Your task to perform on an android device: delete browsing data in the chrome app Image 0: 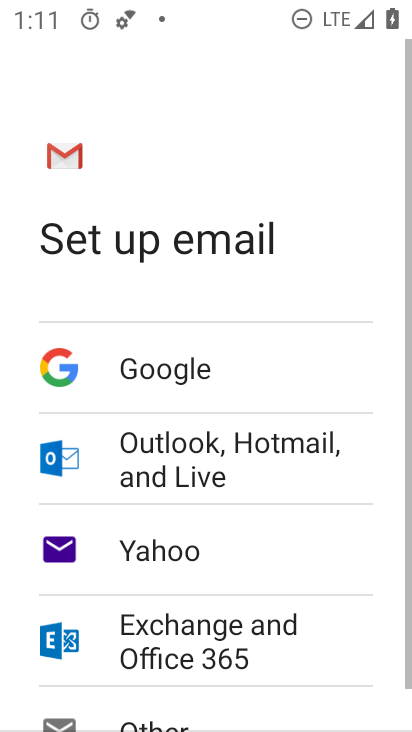
Step 0: press home button
Your task to perform on an android device: delete browsing data in the chrome app Image 1: 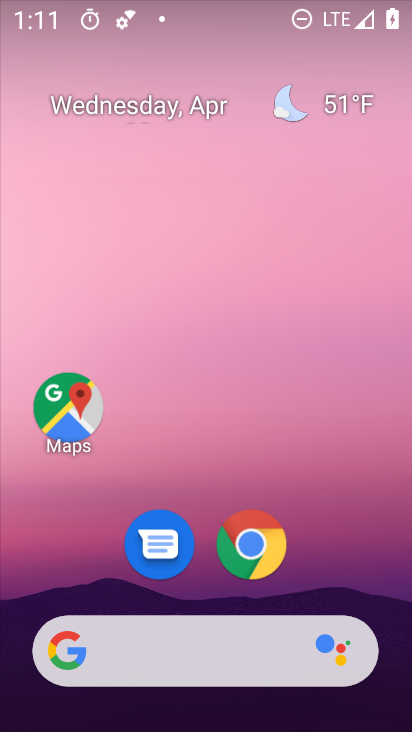
Step 1: drag from (340, 498) to (354, 131)
Your task to perform on an android device: delete browsing data in the chrome app Image 2: 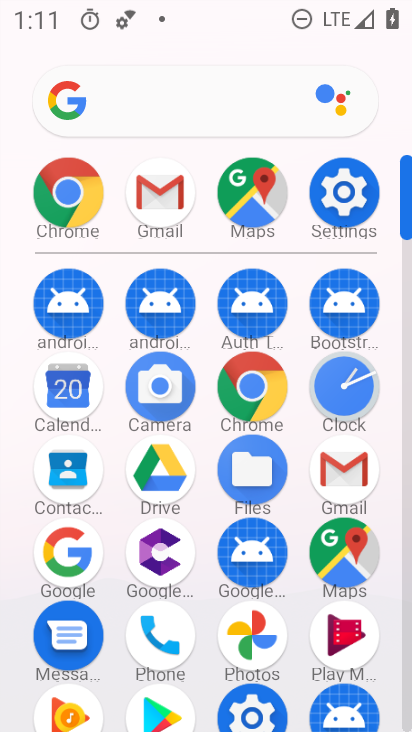
Step 2: click (232, 368)
Your task to perform on an android device: delete browsing data in the chrome app Image 3: 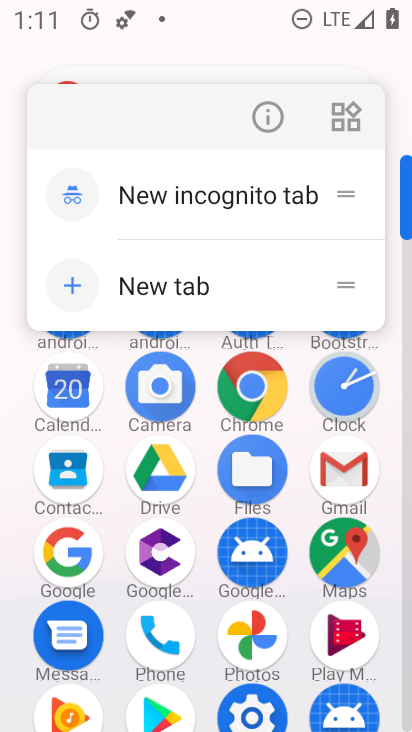
Step 3: click (247, 382)
Your task to perform on an android device: delete browsing data in the chrome app Image 4: 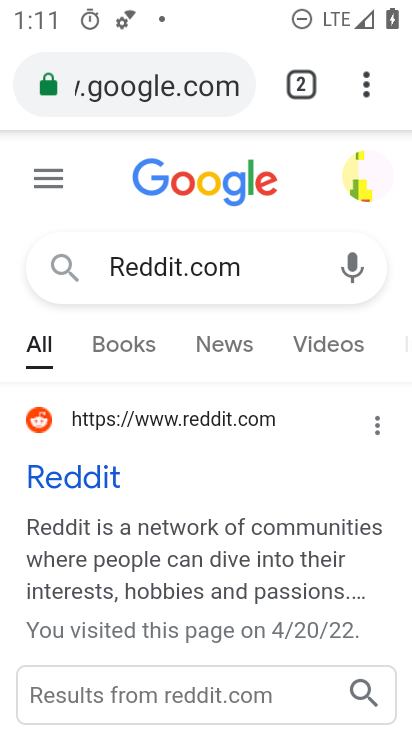
Step 4: click (369, 91)
Your task to perform on an android device: delete browsing data in the chrome app Image 5: 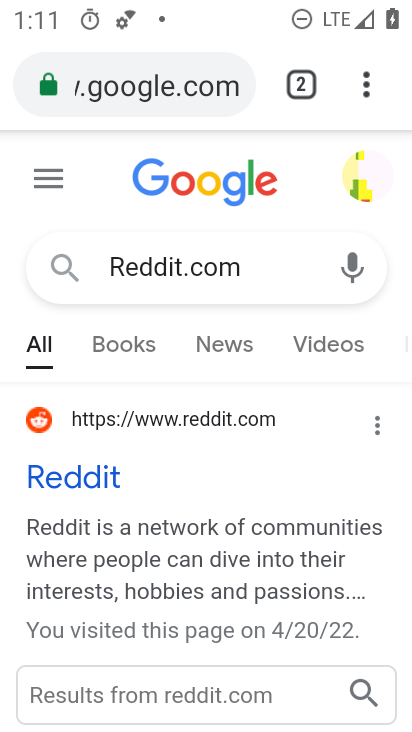
Step 5: click (363, 81)
Your task to perform on an android device: delete browsing data in the chrome app Image 6: 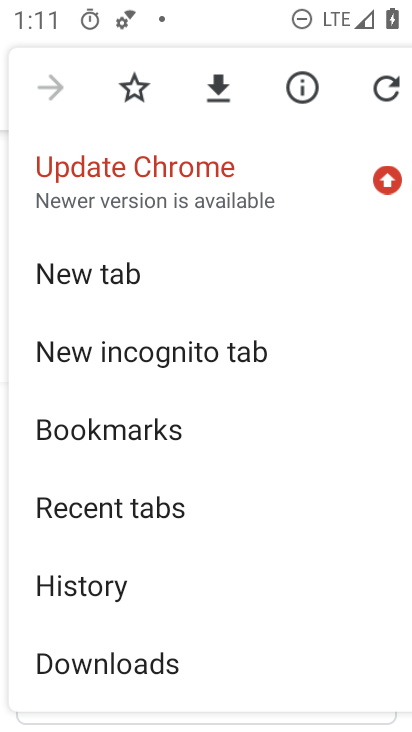
Step 6: drag from (331, 421) to (316, 247)
Your task to perform on an android device: delete browsing data in the chrome app Image 7: 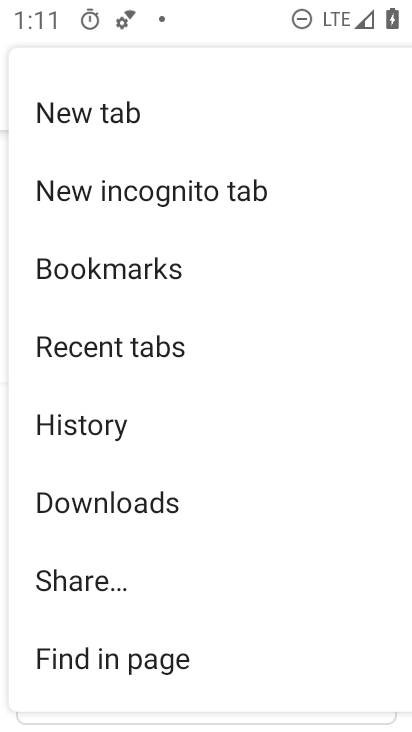
Step 7: drag from (311, 380) to (316, 181)
Your task to perform on an android device: delete browsing data in the chrome app Image 8: 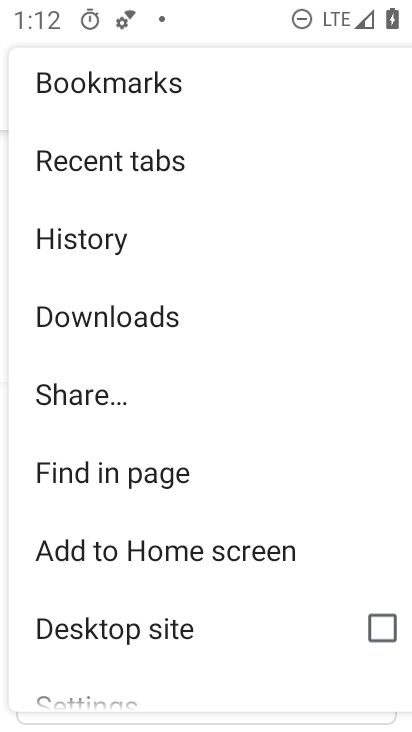
Step 8: drag from (323, 437) to (311, 232)
Your task to perform on an android device: delete browsing data in the chrome app Image 9: 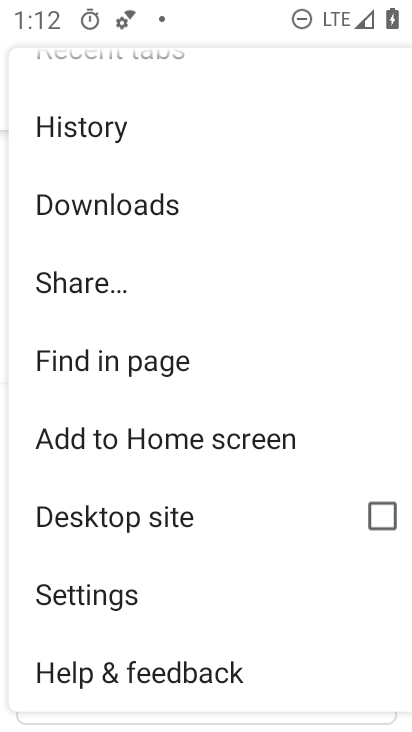
Step 9: click (122, 600)
Your task to perform on an android device: delete browsing data in the chrome app Image 10: 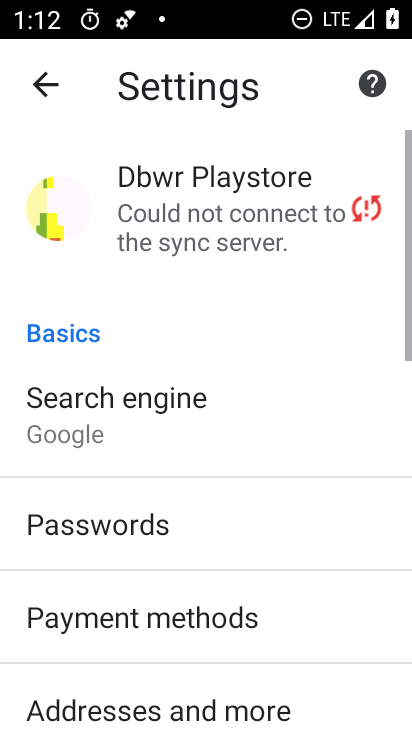
Step 10: drag from (347, 554) to (346, 391)
Your task to perform on an android device: delete browsing data in the chrome app Image 11: 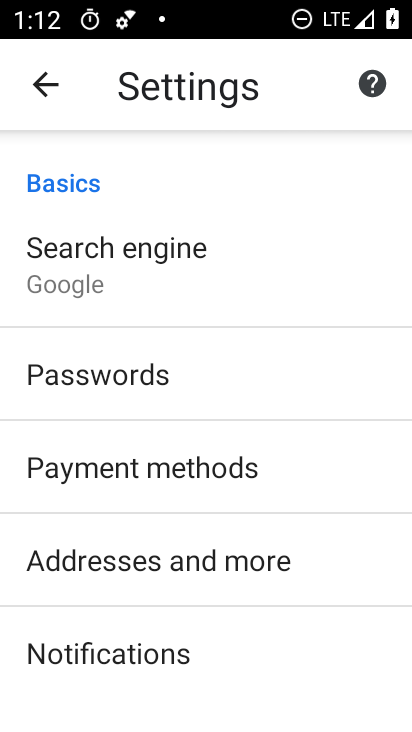
Step 11: drag from (332, 535) to (339, 379)
Your task to perform on an android device: delete browsing data in the chrome app Image 12: 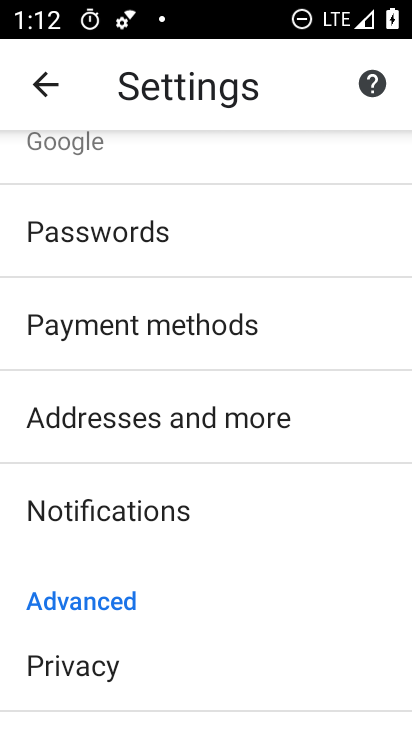
Step 12: drag from (357, 564) to (359, 420)
Your task to perform on an android device: delete browsing data in the chrome app Image 13: 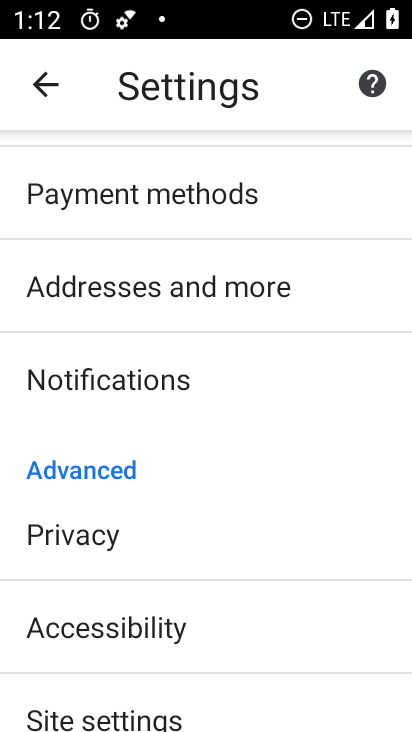
Step 13: drag from (368, 583) to (363, 484)
Your task to perform on an android device: delete browsing data in the chrome app Image 14: 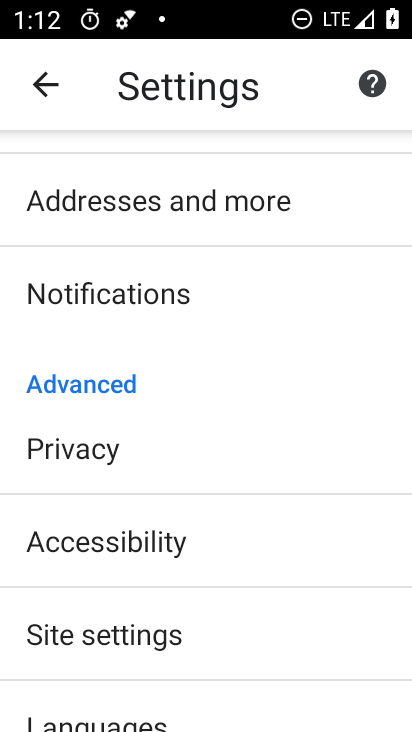
Step 14: drag from (306, 632) to (291, 496)
Your task to perform on an android device: delete browsing data in the chrome app Image 15: 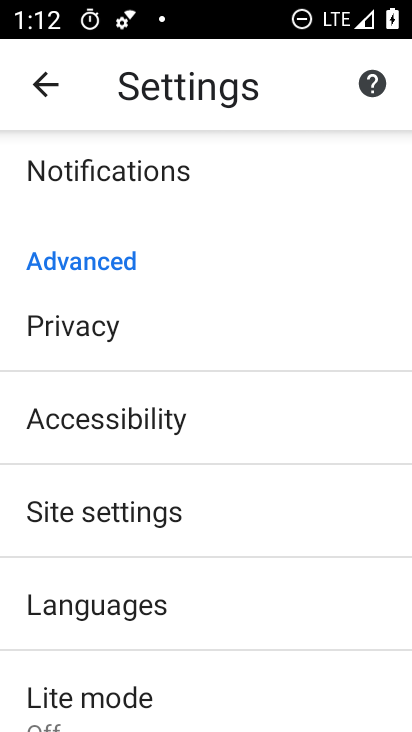
Step 15: drag from (323, 613) to (335, 492)
Your task to perform on an android device: delete browsing data in the chrome app Image 16: 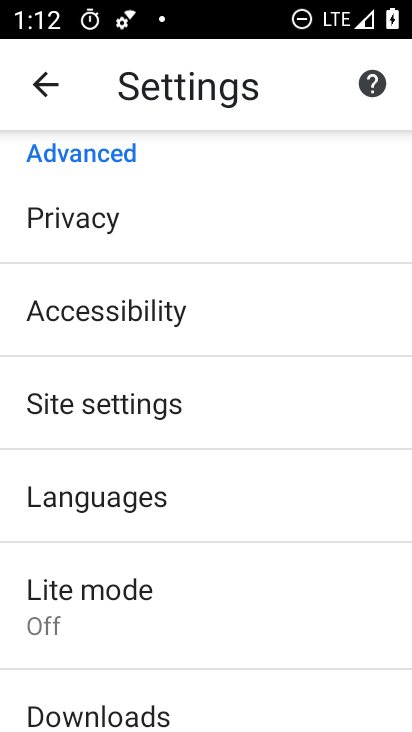
Step 16: drag from (341, 559) to (335, 374)
Your task to perform on an android device: delete browsing data in the chrome app Image 17: 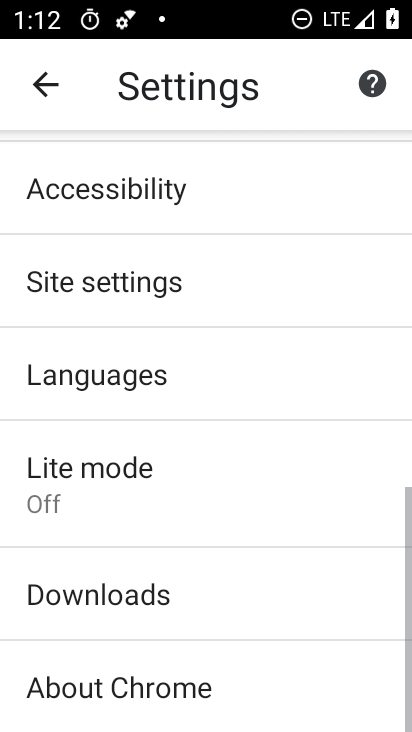
Step 17: drag from (336, 357) to (318, 482)
Your task to perform on an android device: delete browsing data in the chrome app Image 18: 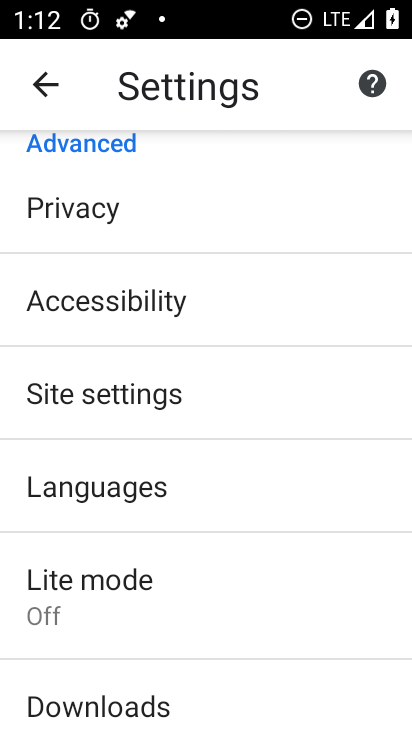
Step 18: drag from (336, 376) to (332, 486)
Your task to perform on an android device: delete browsing data in the chrome app Image 19: 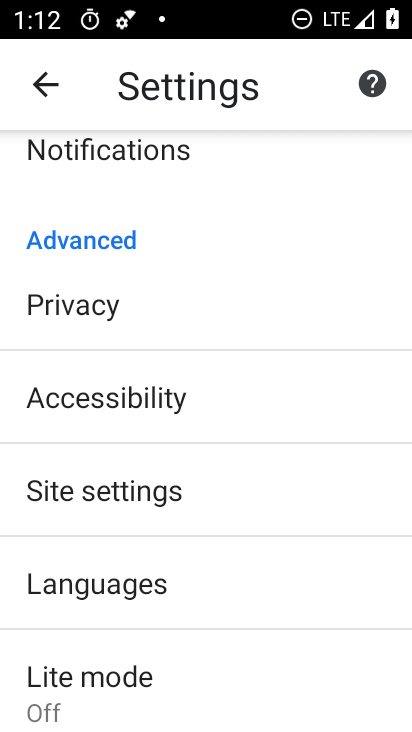
Step 19: drag from (346, 375) to (311, 499)
Your task to perform on an android device: delete browsing data in the chrome app Image 20: 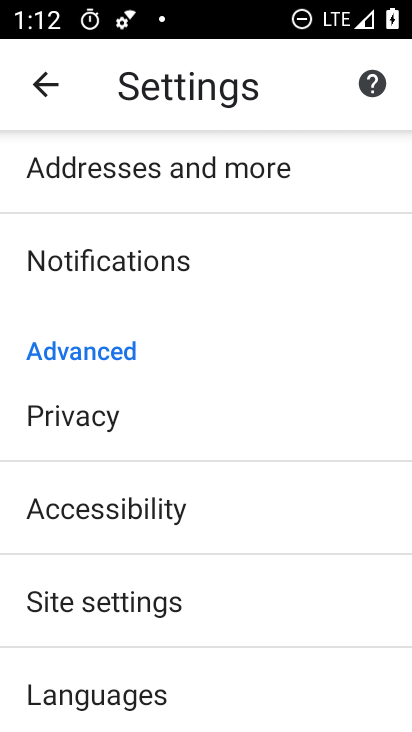
Step 20: click (307, 433)
Your task to perform on an android device: delete browsing data in the chrome app Image 21: 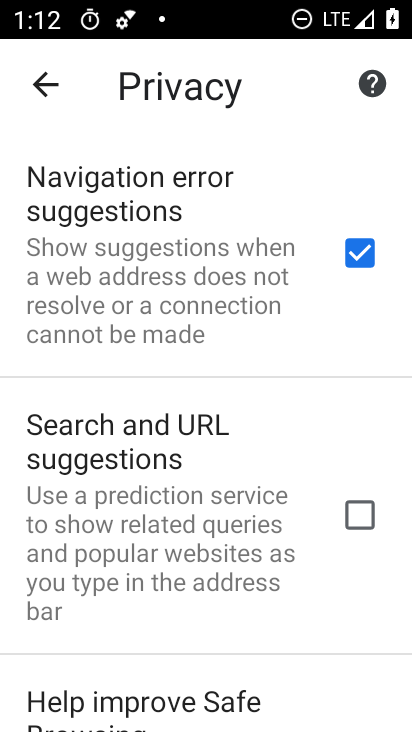
Step 21: drag from (314, 578) to (314, 478)
Your task to perform on an android device: delete browsing data in the chrome app Image 22: 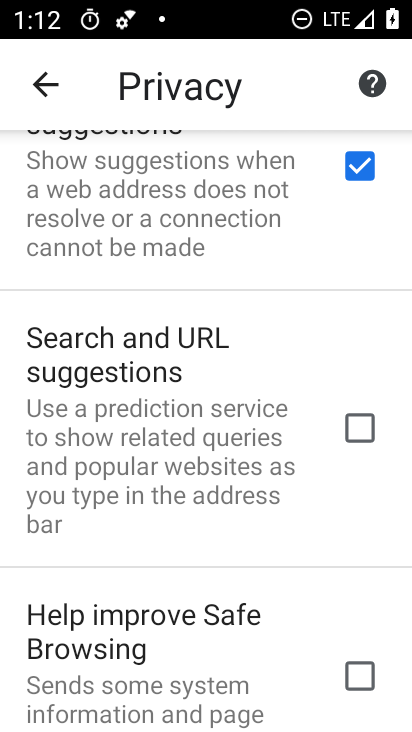
Step 22: drag from (297, 587) to (279, 466)
Your task to perform on an android device: delete browsing data in the chrome app Image 23: 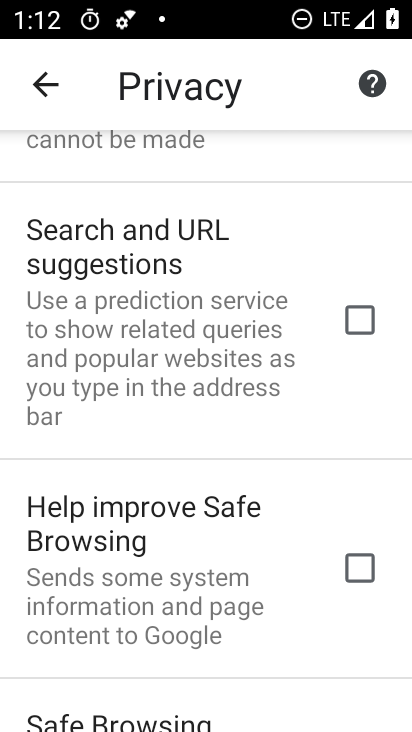
Step 23: drag from (303, 604) to (297, 459)
Your task to perform on an android device: delete browsing data in the chrome app Image 24: 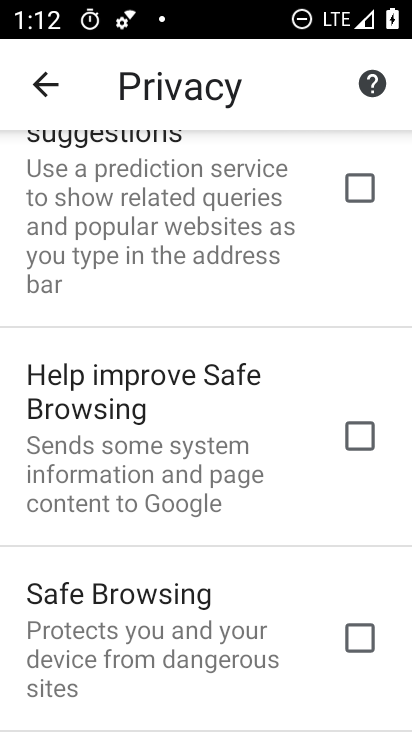
Step 24: drag from (299, 628) to (291, 491)
Your task to perform on an android device: delete browsing data in the chrome app Image 25: 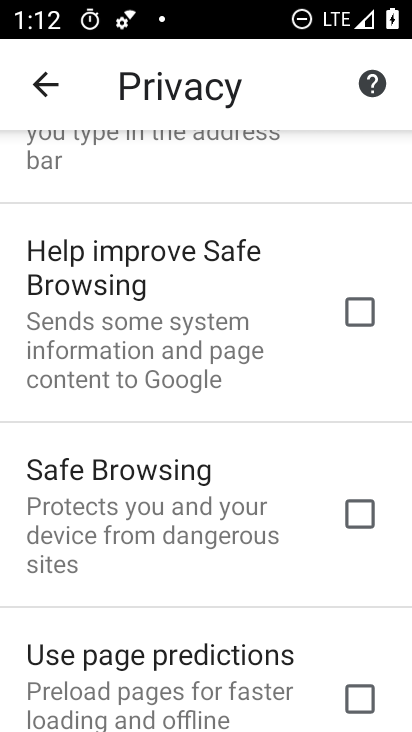
Step 25: drag from (300, 603) to (294, 498)
Your task to perform on an android device: delete browsing data in the chrome app Image 26: 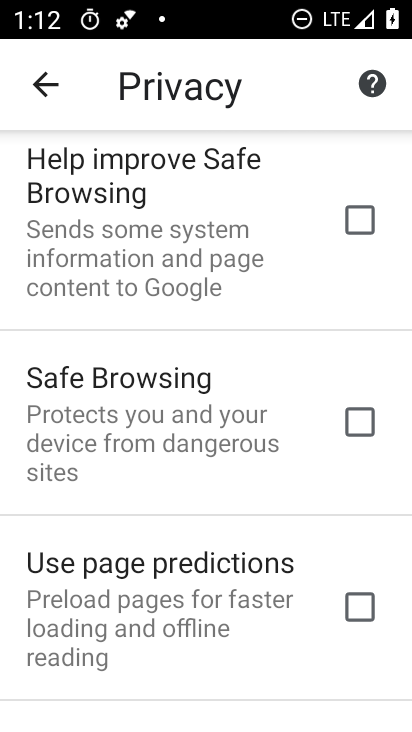
Step 26: drag from (335, 657) to (306, 525)
Your task to perform on an android device: delete browsing data in the chrome app Image 27: 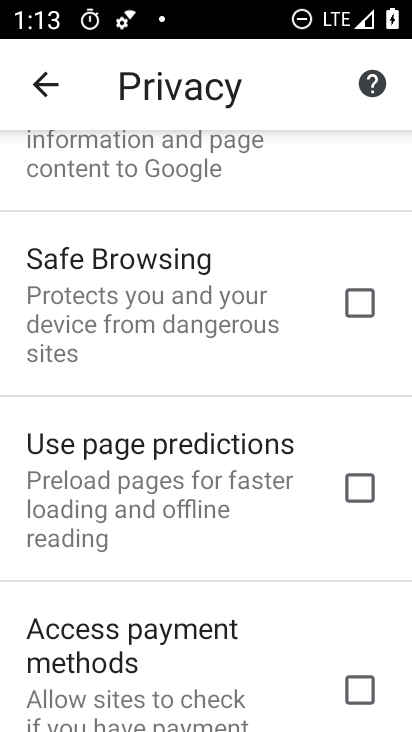
Step 27: drag from (312, 652) to (296, 552)
Your task to perform on an android device: delete browsing data in the chrome app Image 28: 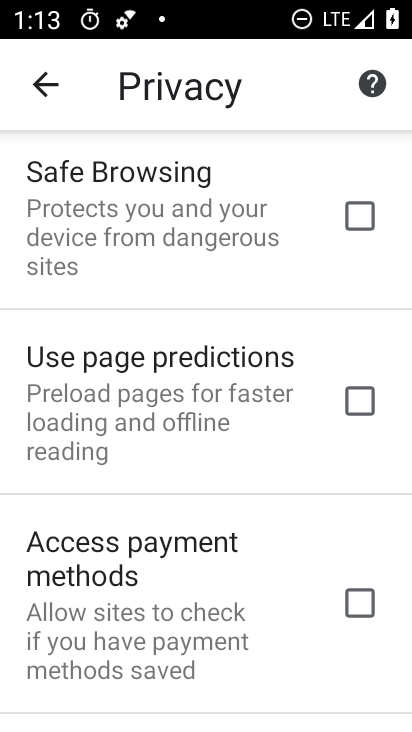
Step 28: drag from (310, 691) to (295, 531)
Your task to perform on an android device: delete browsing data in the chrome app Image 29: 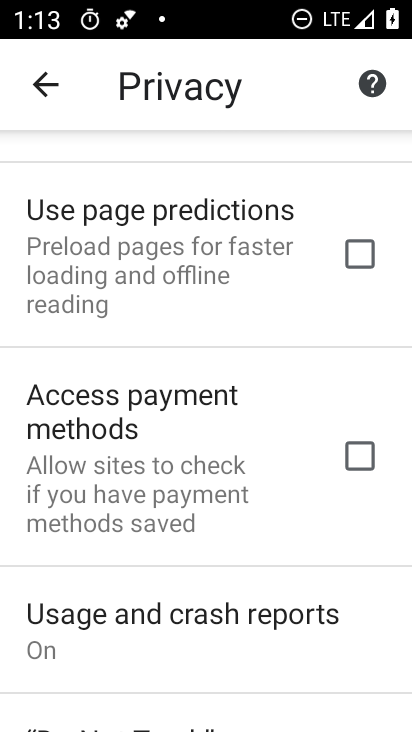
Step 29: drag from (293, 650) to (280, 531)
Your task to perform on an android device: delete browsing data in the chrome app Image 30: 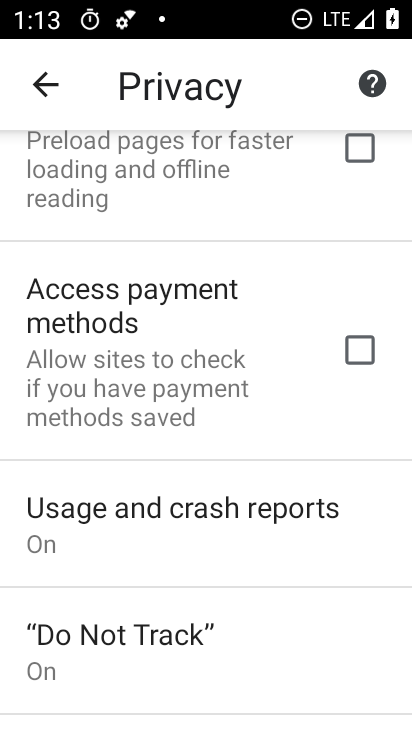
Step 30: drag from (291, 658) to (281, 544)
Your task to perform on an android device: delete browsing data in the chrome app Image 31: 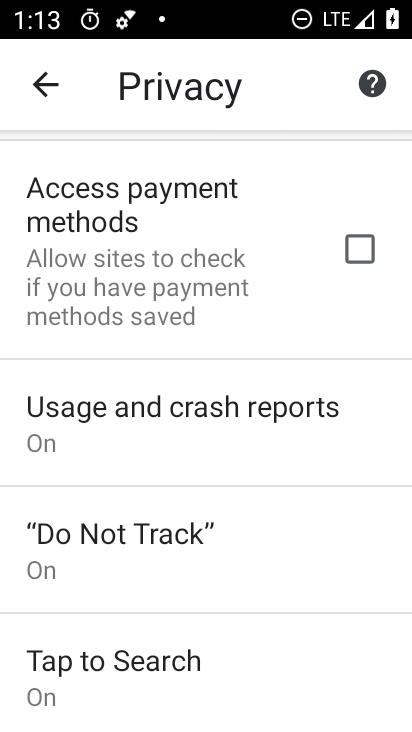
Step 31: drag from (289, 675) to (278, 565)
Your task to perform on an android device: delete browsing data in the chrome app Image 32: 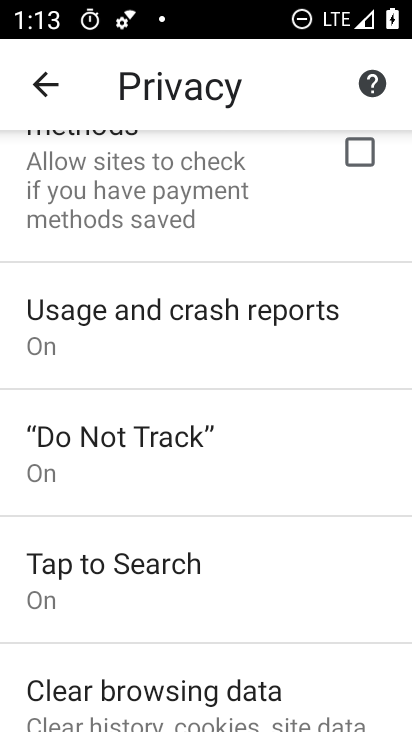
Step 32: drag from (294, 648) to (286, 581)
Your task to perform on an android device: delete browsing data in the chrome app Image 33: 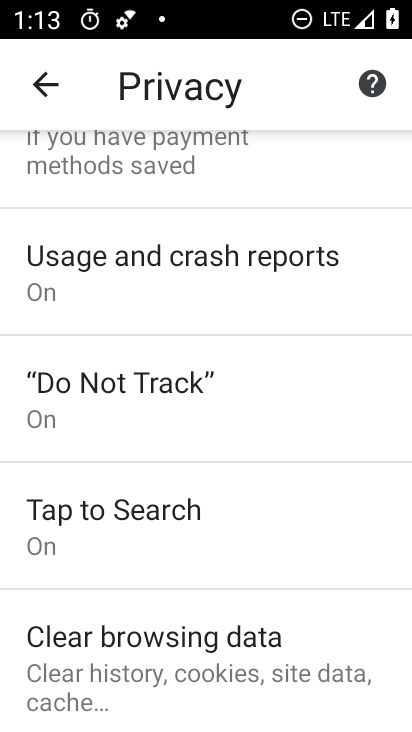
Step 33: click (274, 666)
Your task to perform on an android device: delete browsing data in the chrome app Image 34: 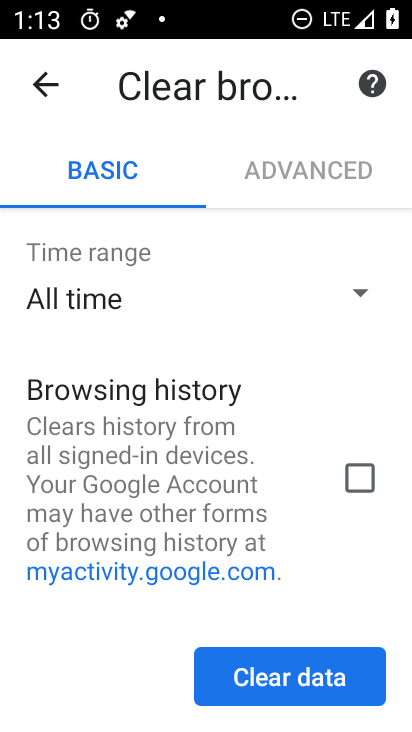
Step 34: click (355, 478)
Your task to perform on an android device: delete browsing data in the chrome app Image 35: 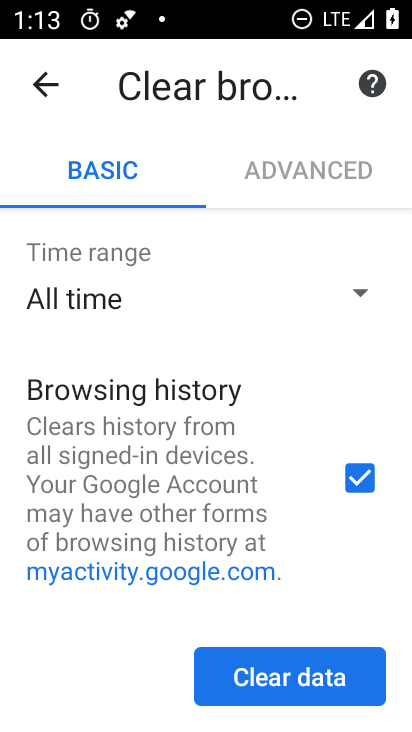
Step 35: click (332, 679)
Your task to perform on an android device: delete browsing data in the chrome app Image 36: 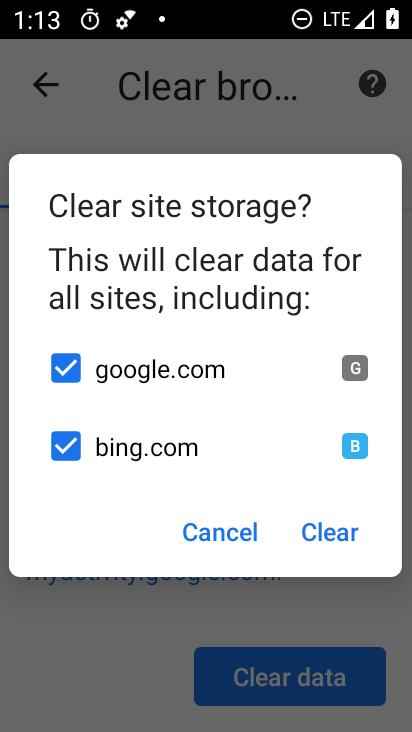
Step 36: click (332, 527)
Your task to perform on an android device: delete browsing data in the chrome app Image 37: 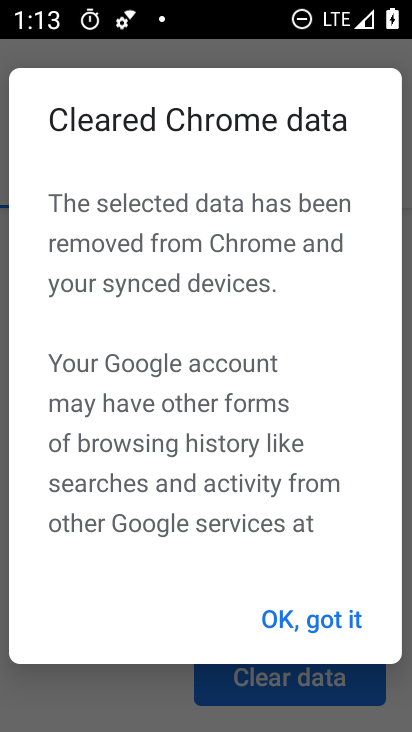
Step 37: click (340, 617)
Your task to perform on an android device: delete browsing data in the chrome app Image 38: 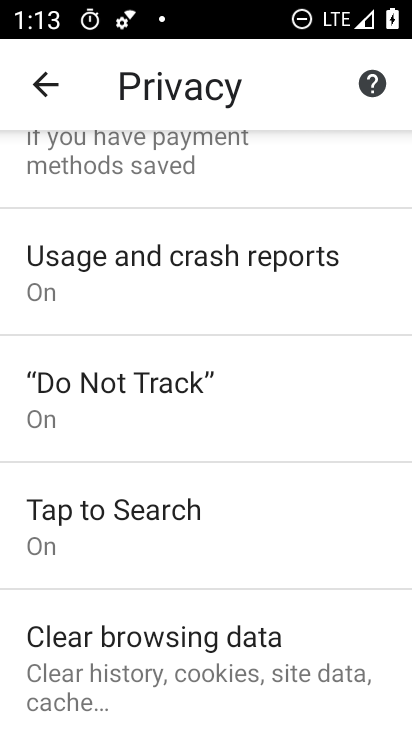
Step 38: task complete